Your task to perform on an android device: Open the map Image 0: 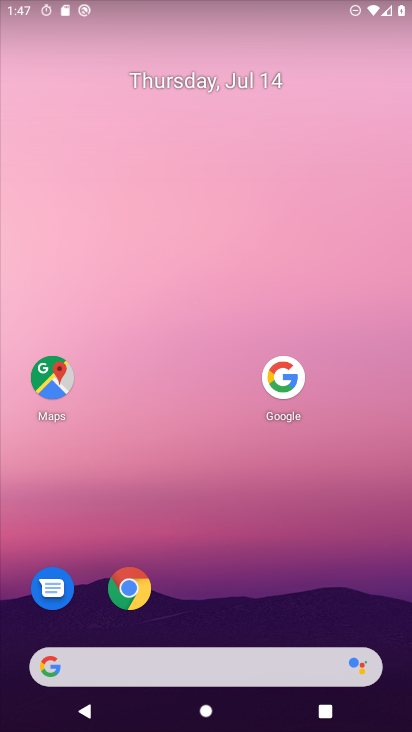
Step 0: click (51, 376)
Your task to perform on an android device: Open the map Image 1: 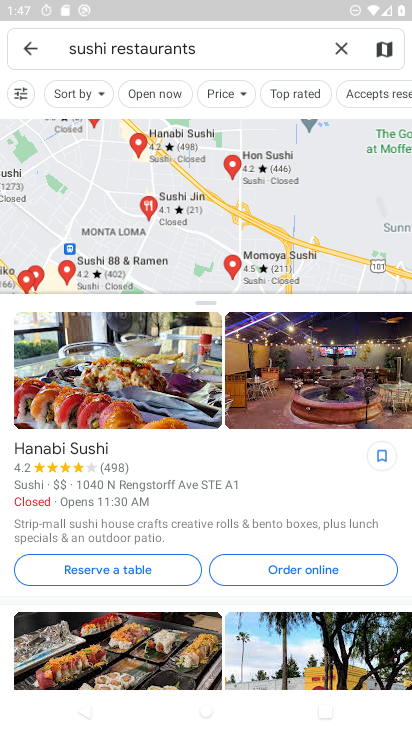
Step 1: click (29, 51)
Your task to perform on an android device: Open the map Image 2: 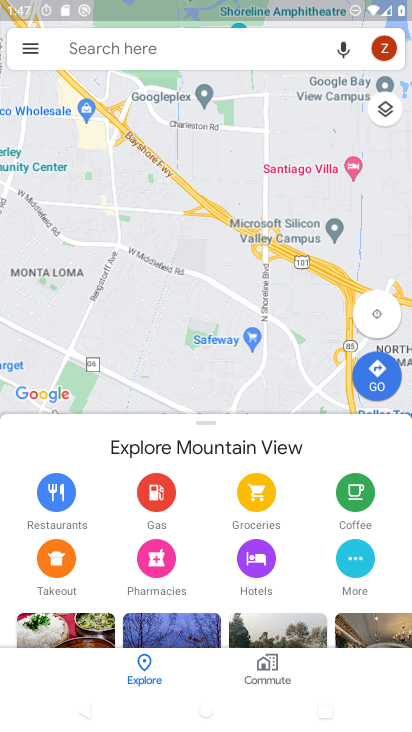
Step 2: task complete